Your task to perform on an android device: Go to Maps Image 0: 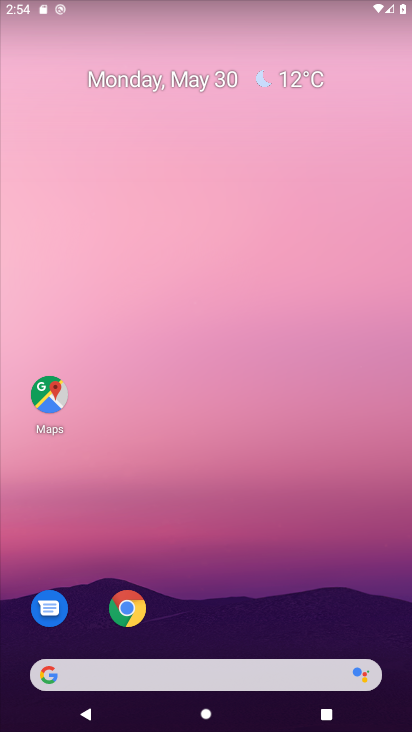
Step 0: click (54, 390)
Your task to perform on an android device: Go to Maps Image 1: 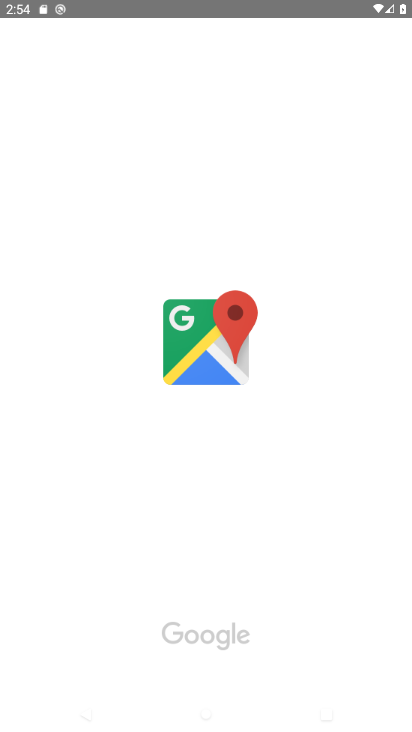
Step 1: task complete